Your task to perform on an android device: turn on translation in the chrome app Image 0: 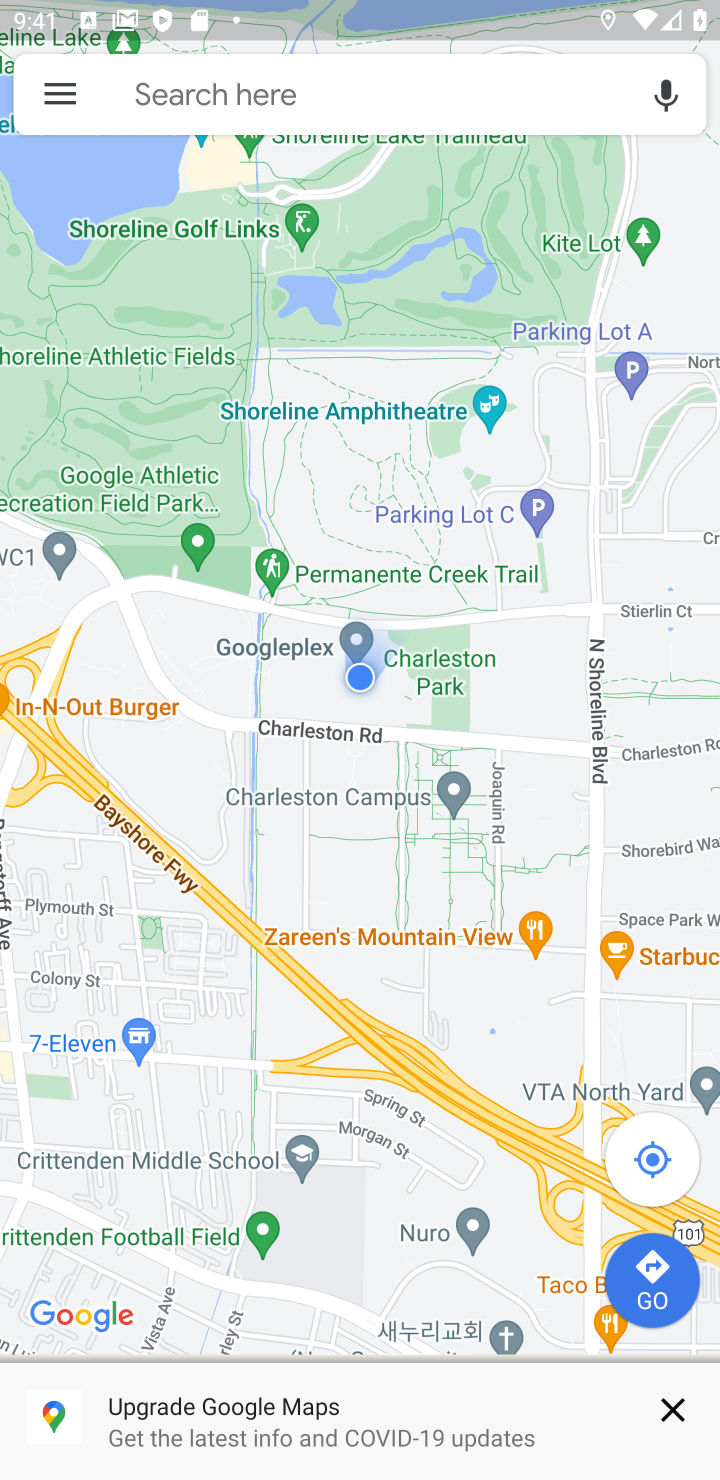
Step 0: press home button
Your task to perform on an android device: turn on translation in the chrome app Image 1: 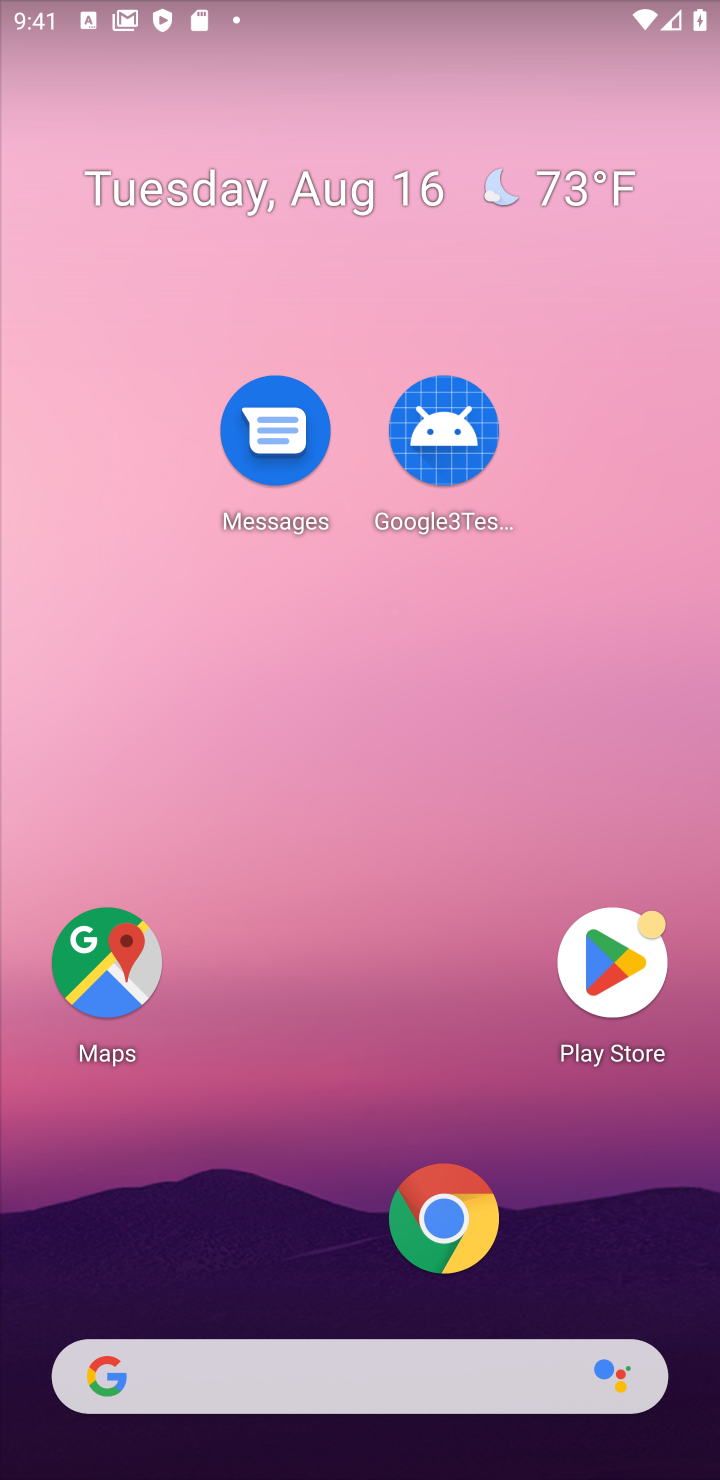
Step 1: click (441, 1222)
Your task to perform on an android device: turn on translation in the chrome app Image 2: 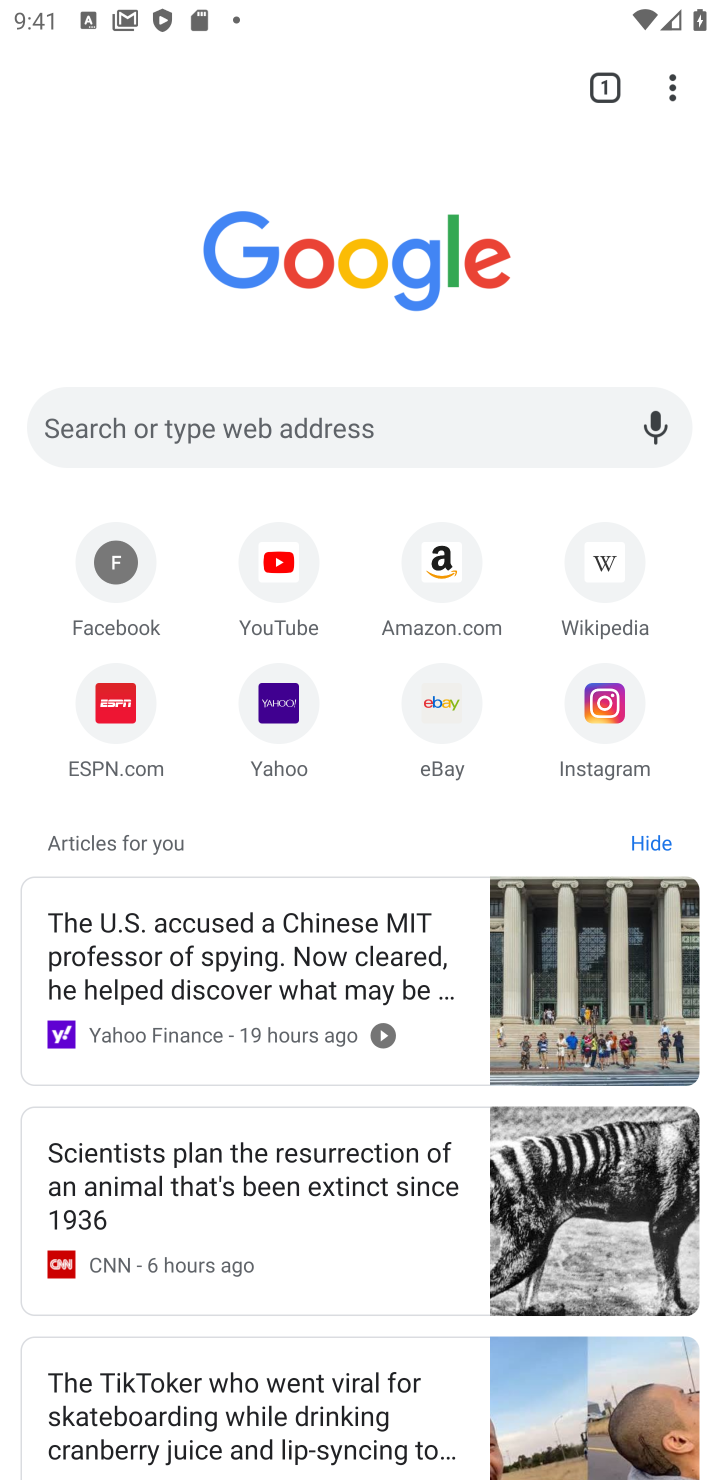
Step 2: click (678, 77)
Your task to perform on an android device: turn on translation in the chrome app Image 3: 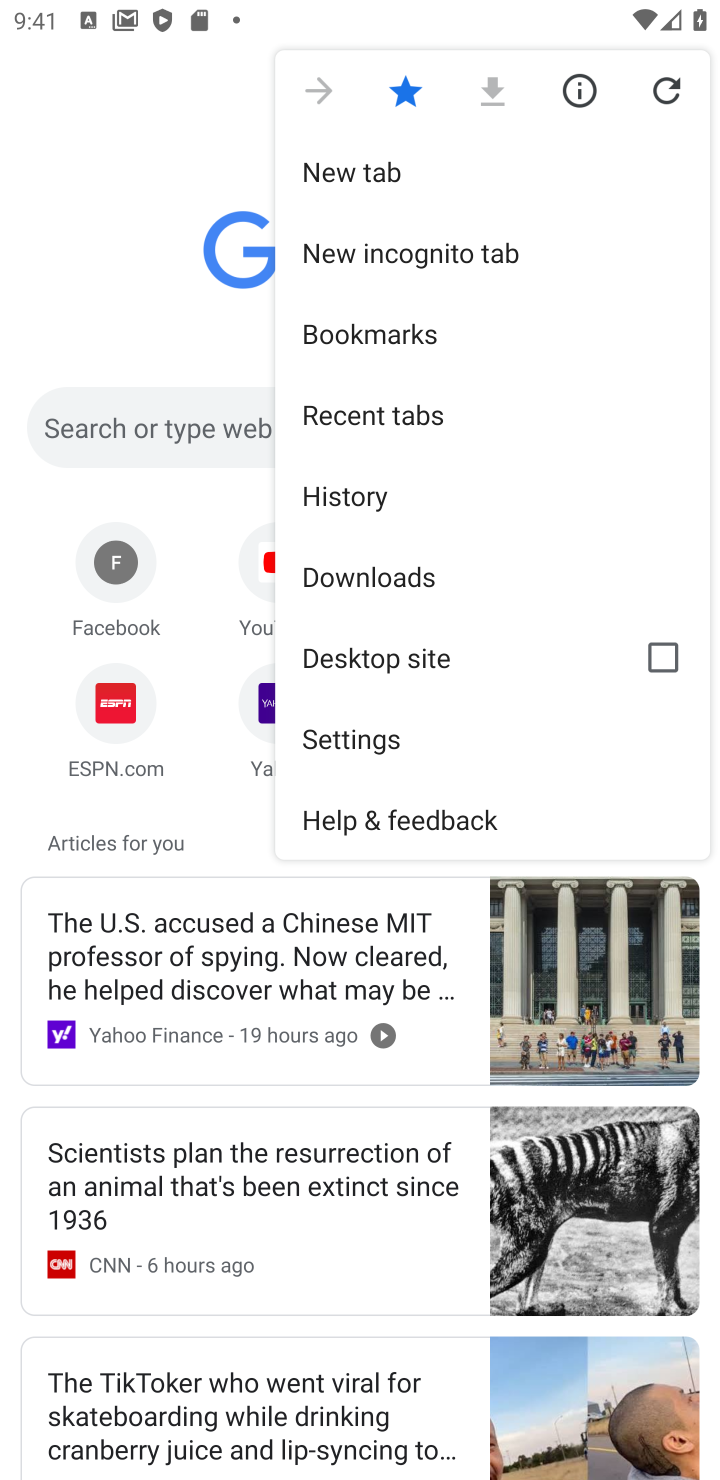
Step 3: click (436, 747)
Your task to perform on an android device: turn on translation in the chrome app Image 4: 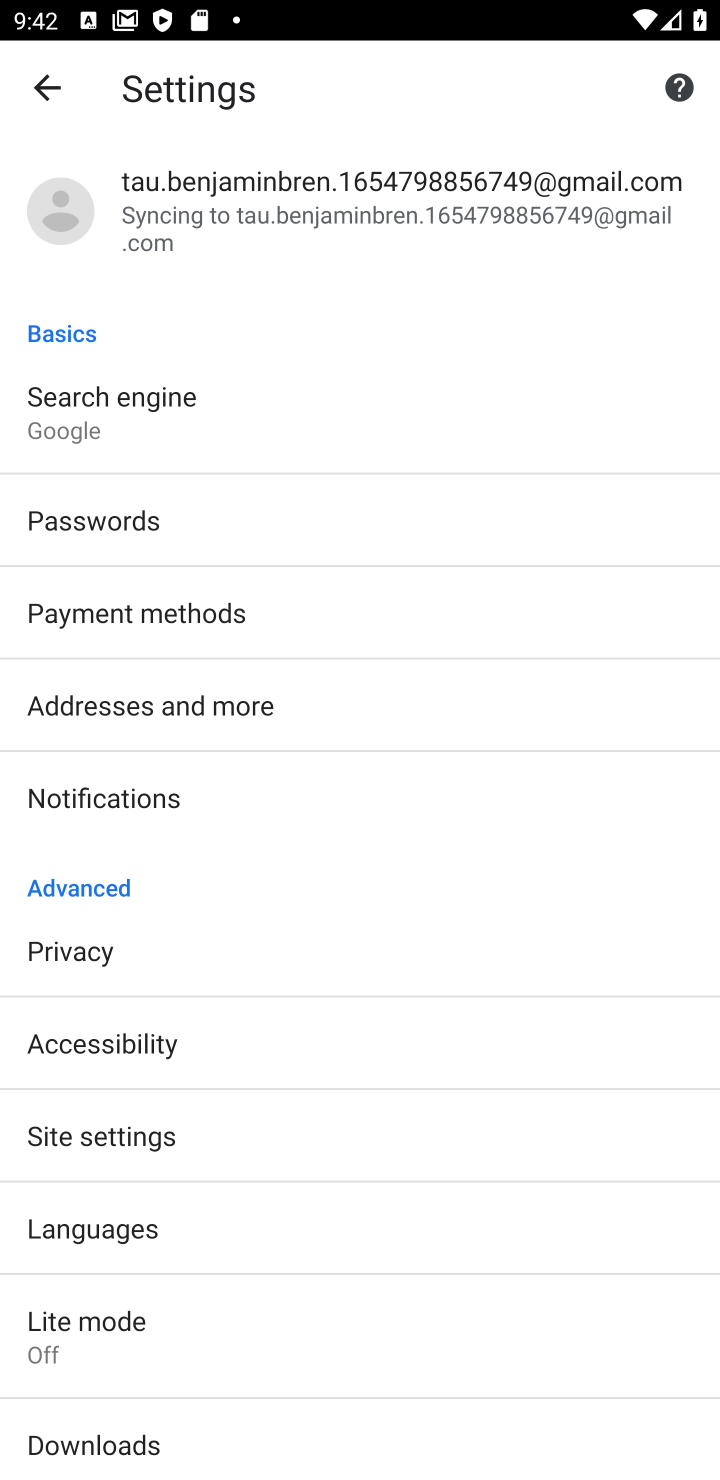
Step 4: click (105, 1240)
Your task to perform on an android device: turn on translation in the chrome app Image 5: 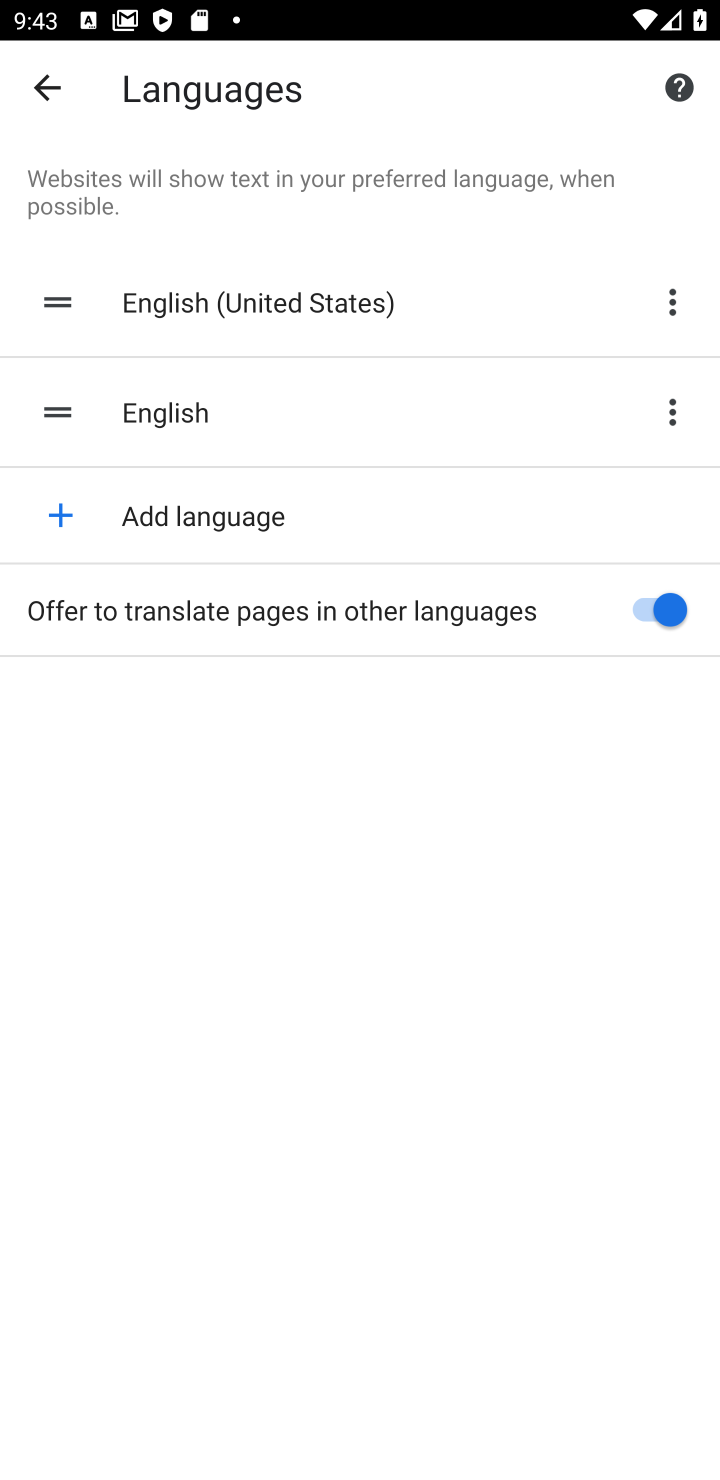
Step 5: task complete